Your task to perform on an android device: check battery use Image 0: 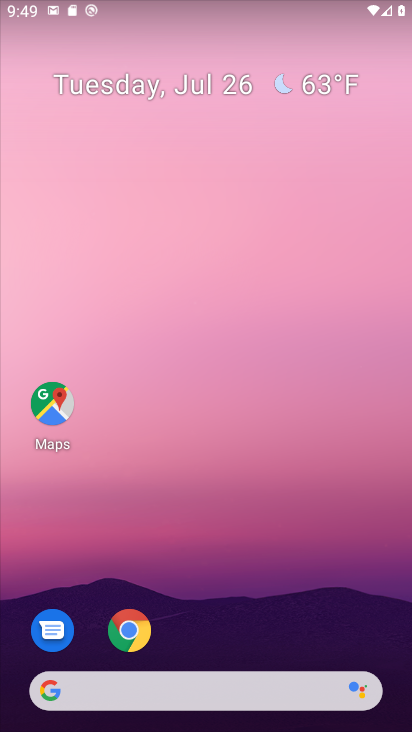
Step 0: drag from (213, 654) to (234, 85)
Your task to perform on an android device: check battery use Image 1: 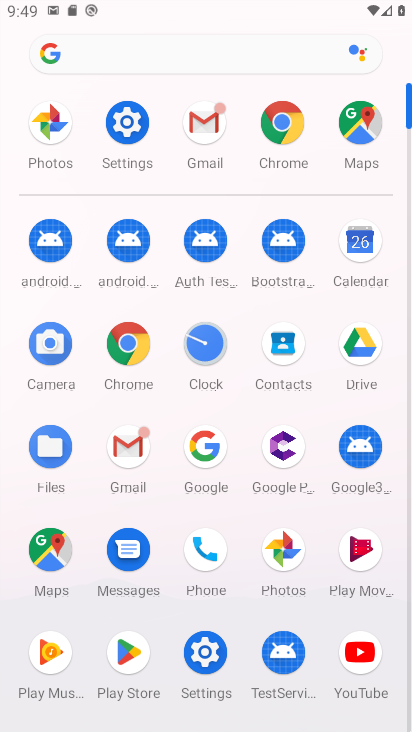
Step 1: click (125, 110)
Your task to perform on an android device: check battery use Image 2: 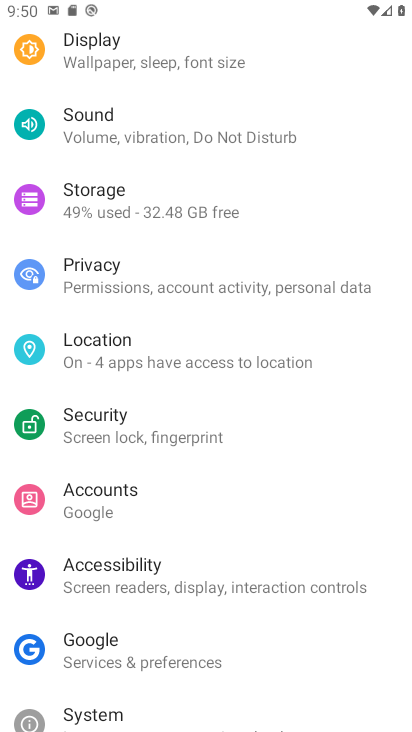
Step 2: drag from (152, 99) to (245, 617)
Your task to perform on an android device: check battery use Image 3: 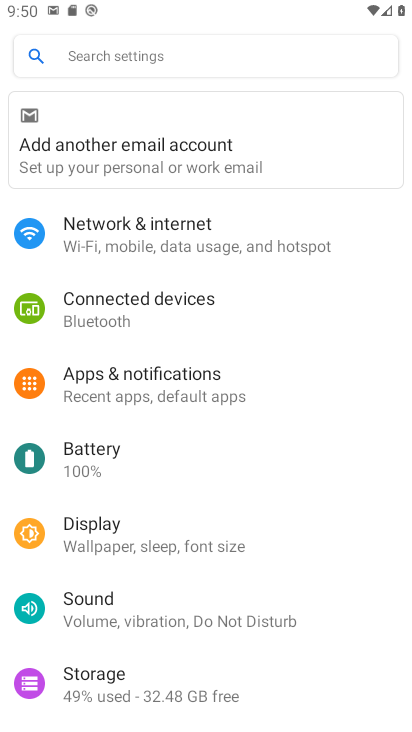
Step 3: click (130, 454)
Your task to perform on an android device: check battery use Image 4: 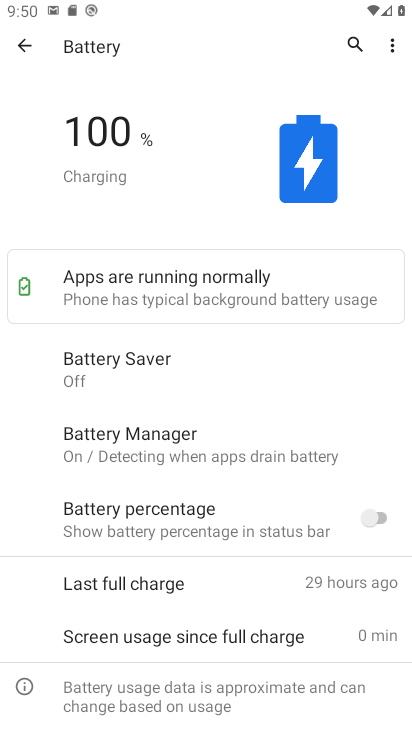
Step 4: click (395, 38)
Your task to perform on an android device: check battery use Image 5: 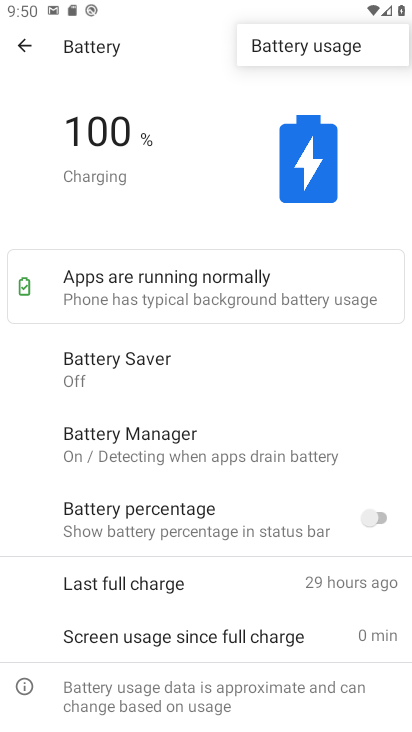
Step 5: click (317, 55)
Your task to perform on an android device: check battery use Image 6: 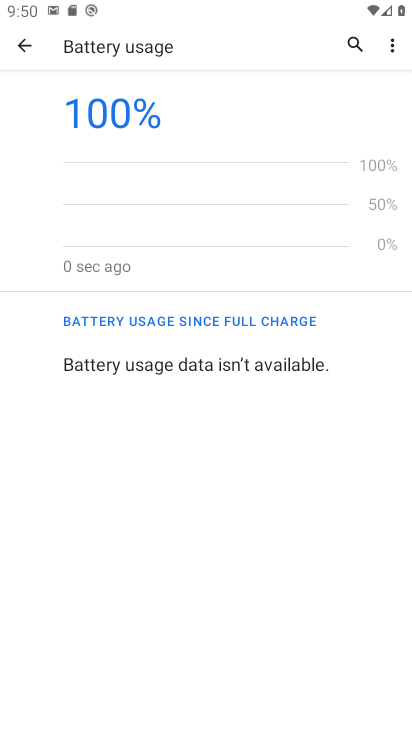
Step 6: task complete